Your task to perform on an android device: Open calendar and show me the fourth week of next month Image 0: 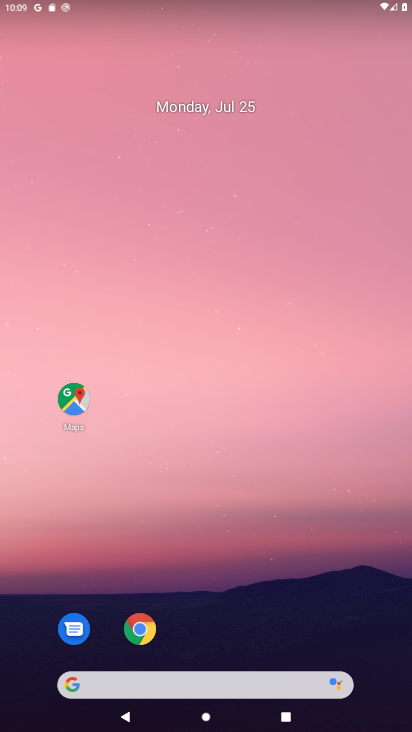
Step 0: click (202, 113)
Your task to perform on an android device: Open calendar and show me the fourth week of next month Image 1: 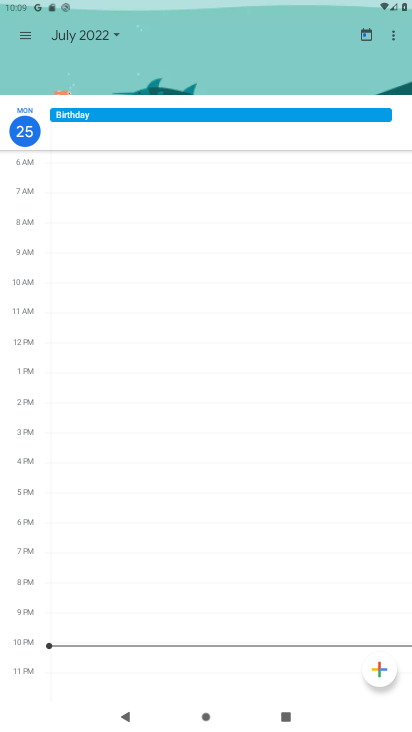
Step 1: click (202, 113)
Your task to perform on an android device: Open calendar and show me the fourth week of next month Image 2: 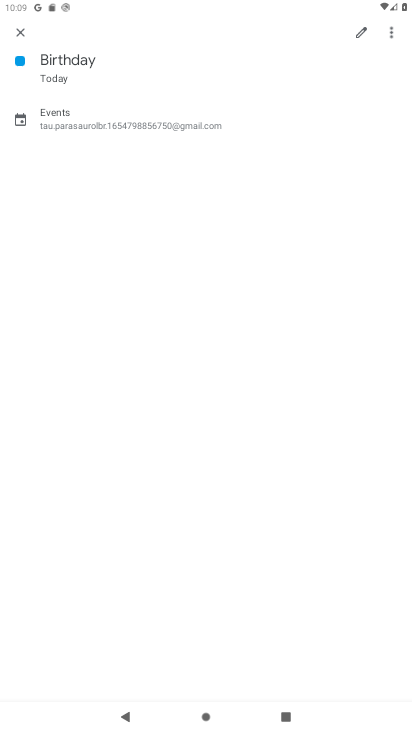
Step 2: click (18, 36)
Your task to perform on an android device: Open calendar and show me the fourth week of next month Image 3: 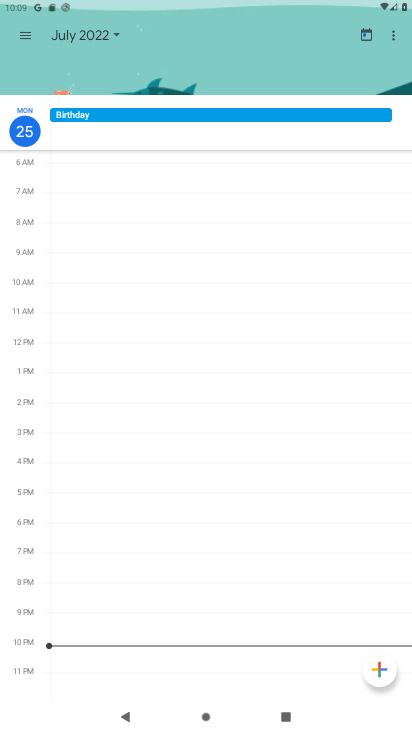
Step 3: click (91, 40)
Your task to perform on an android device: Open calendar and show me the fourth week of next month Image 4: 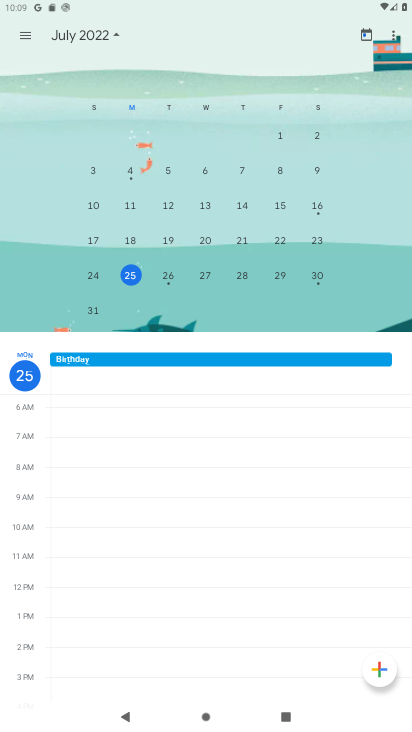
Step 4: drag from (345, 309) to (58, 293)
Your task to perform on an android device: Open calendar and show me the fourth week of next month Image 5: 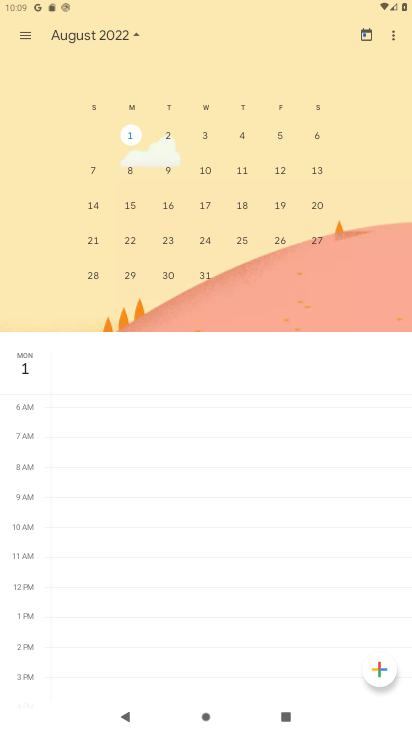
Step 5: click (317, 237)
Your task to perform on an android device: Open calendar and show me the fourth week of next month Image 6: 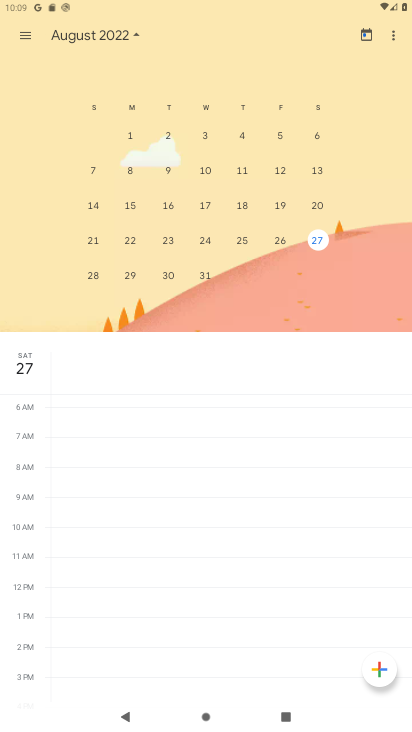
Step 6: task complete